Your task to perform on an android device: empty trash in google photos Image 0: 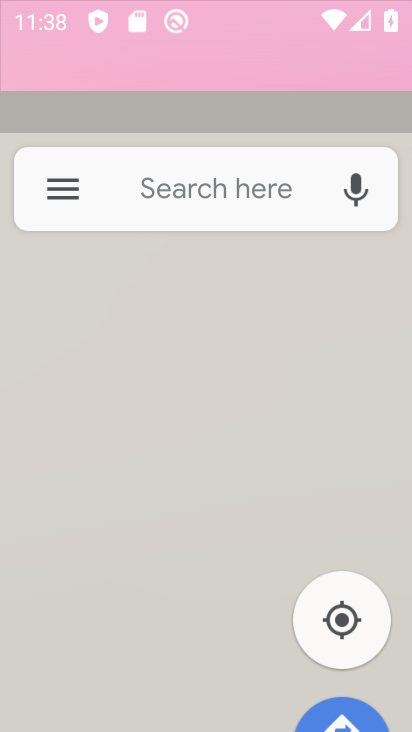
Step 0: click (245, 518)
Your task to perform on an android device: empty trash in google photos Image 1: 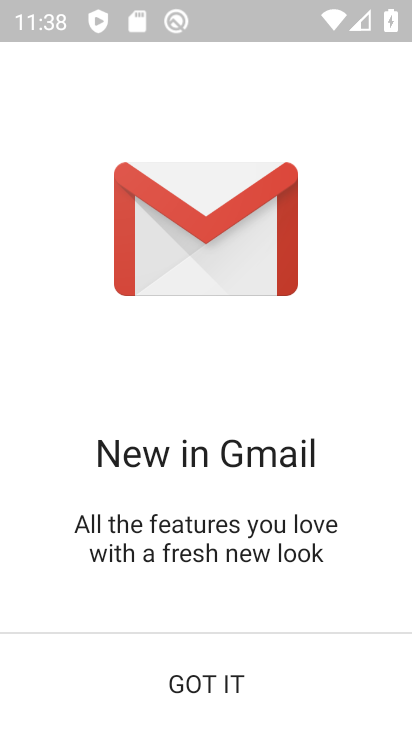
Step 1: press home button
Your task to perform on an android device: empty trash in google photos Image 2: 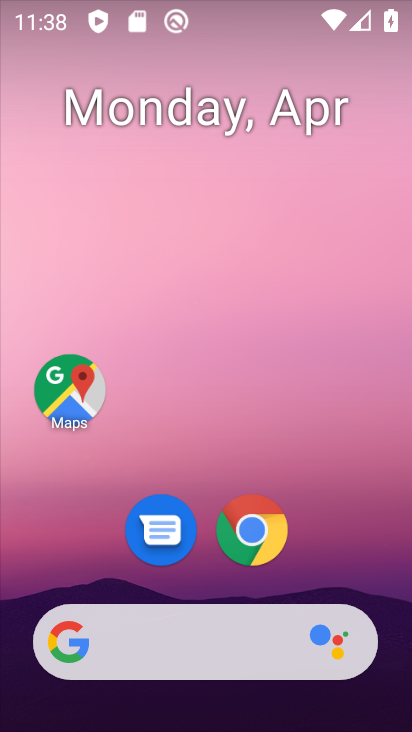
Step 2: drag from (213, 590) to (266, 56)
Your task to perform on an android device: empty trash in google photos Image 3: 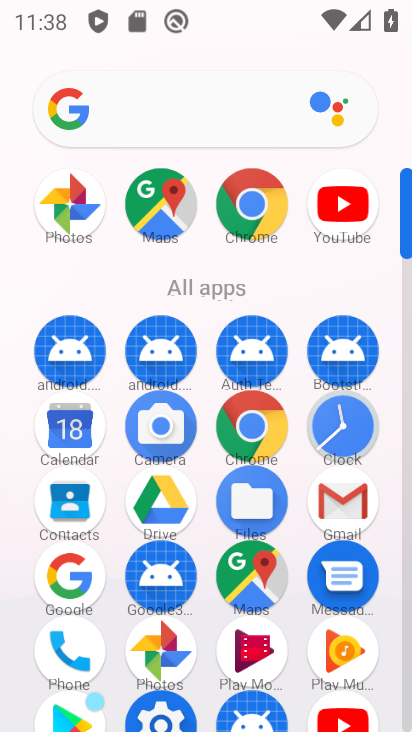
Step 3: click (148, 652)
Your task to perform on an android device: empty trash in google photos Image 4: 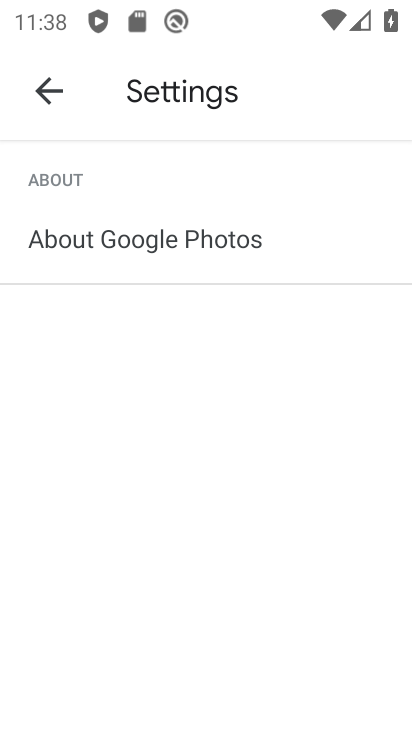
Step 4: click (36, 93)
Your task to perform on an android device: empty trash in google photos Image 5: 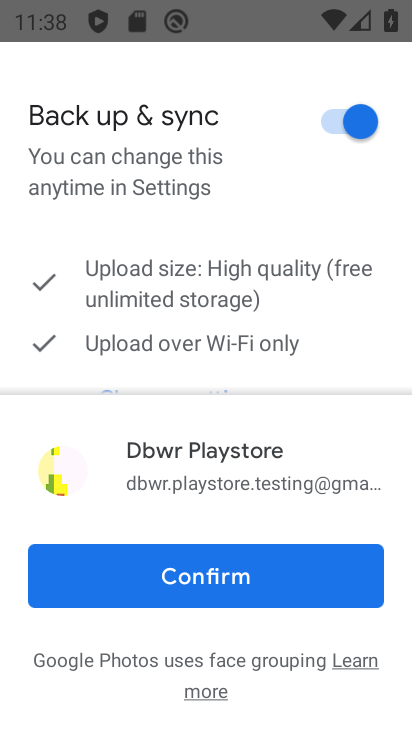
Step 5: click (167, 587)
Your task to perform on an android device: empty trash in google photos Image 6: 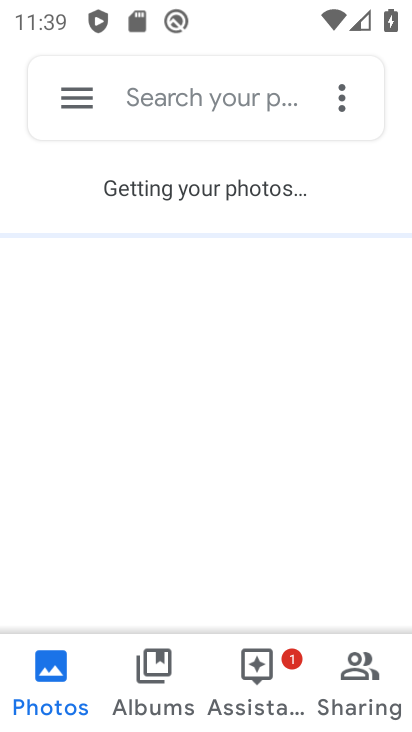
Step 6: click (65, 90)
Your task to perform on an android device: empty trash in google photos Image 7: 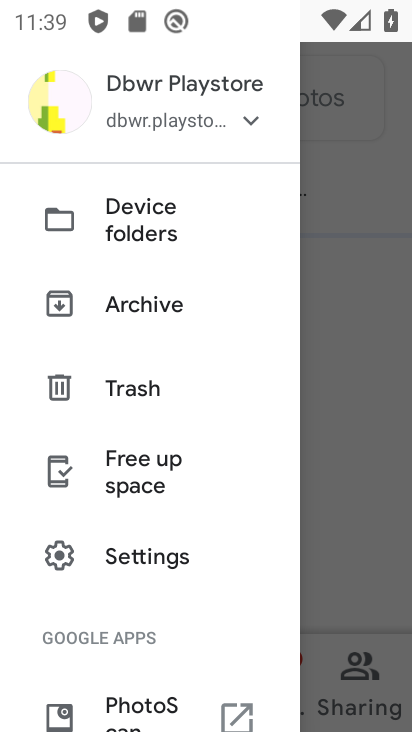
Step 7: click (155, 385)
Your task to perform on an android device: empty trash in google photos Image 8: 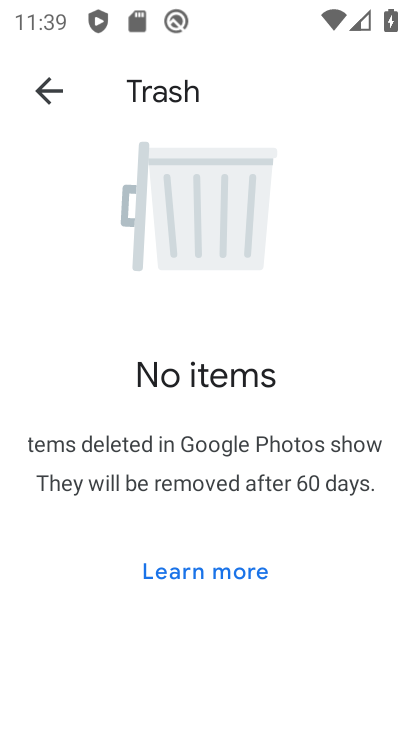
Step 8: task complete